Your task to perform on an android device: turn notification dots on Image 0: 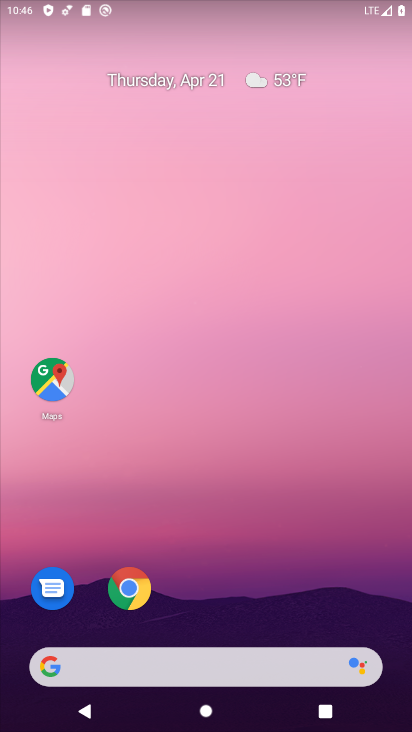
Step 0: drag from (266, 648) to (268, 274)
Your task to perform on an android device: turn notification dots on Image 1: 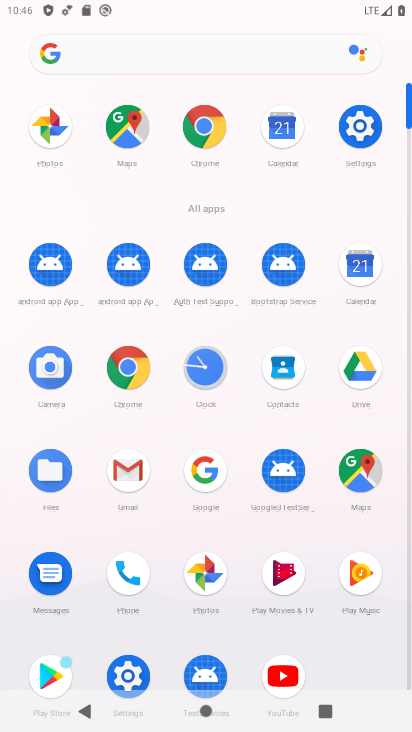
Step 1: click (355, 129)
Your task to perform on an android device: turn notification dots on Image 2: 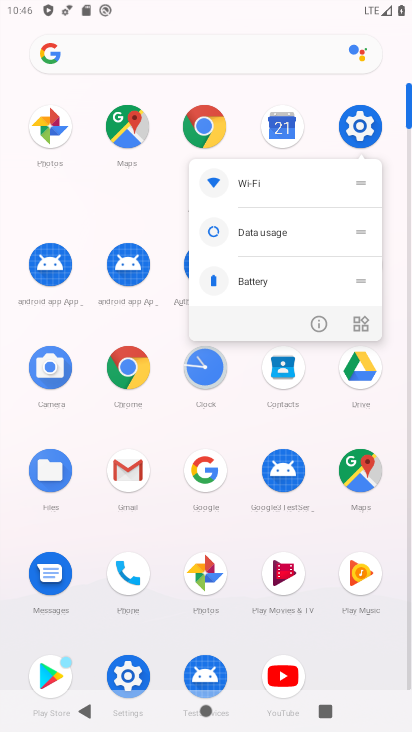
Step 2: click (355, 129)
Your task to perform on an android device: turn notification dots on Image 3: 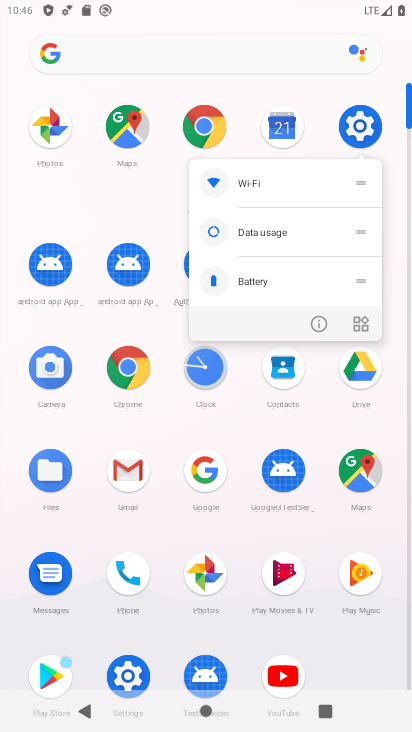
Step 3: click (362, 124)
Your task to perform on an android device: turn notification dots on Image 4: 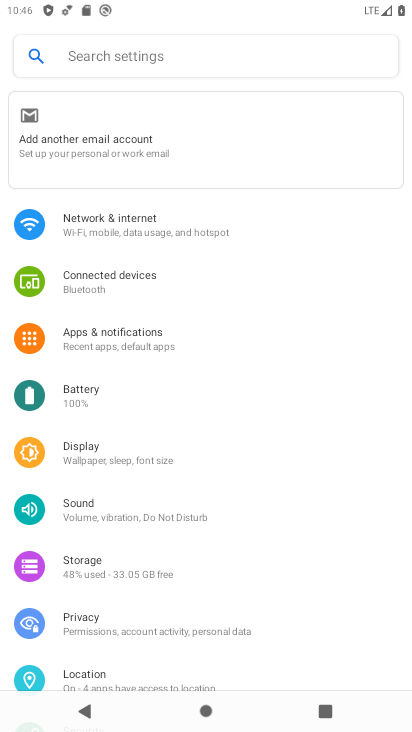
Step 4: click (151, 336)
Your task to perform on an android device: turn notification dots on Image 5: 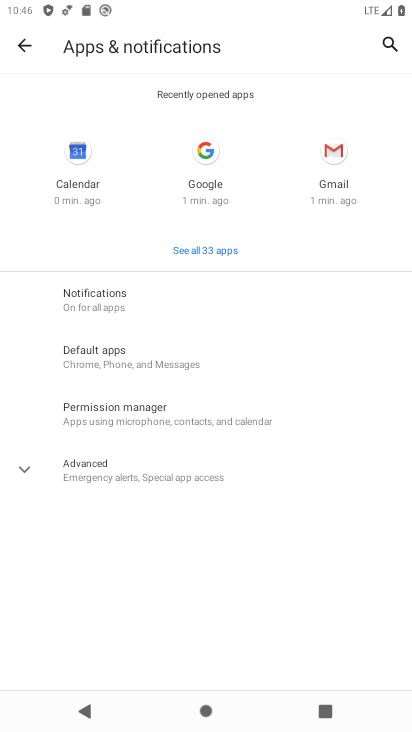
Step 5: click (114, 468)
Your task to perform on an android device: turn notification dots on Image 6: 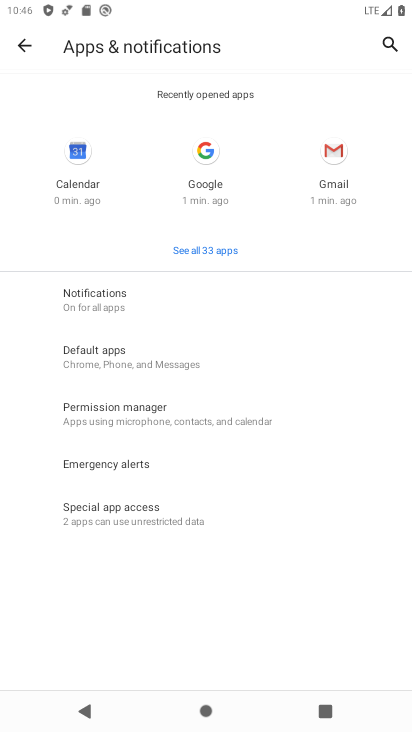
Step 6: click (109, 302)
Your task to perform on an android device: turn notification dots on Image 7: 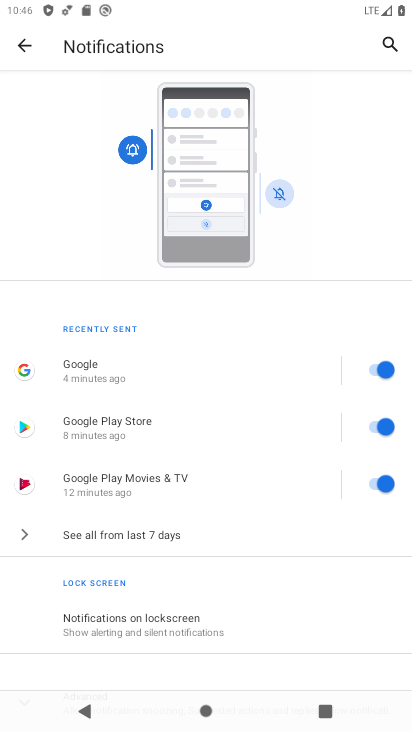
Step 7: drag from (221, 642) to (222, 359)
Your task to perform on an android device: turn notification dots on Image 8: 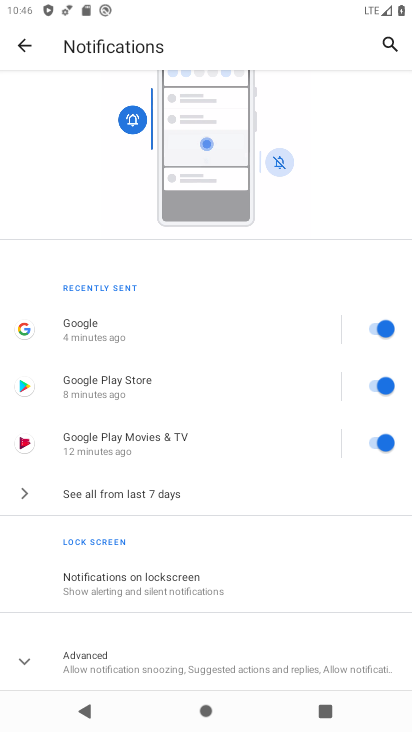
Step 8: click (135, 668)
Your task to perform on an android device: turn notification dots on Image 9: 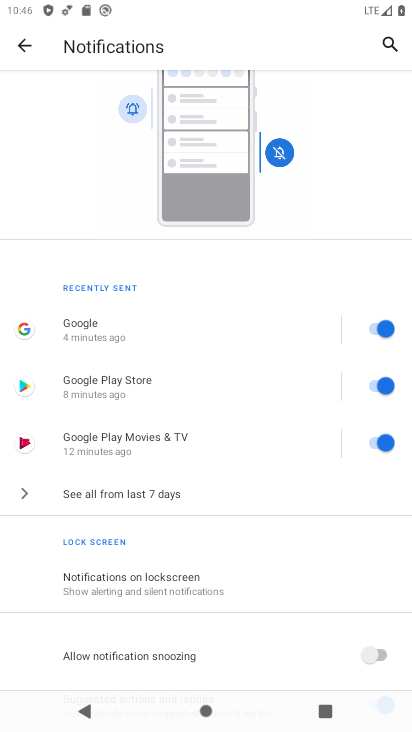
Step 9: task complete